Your task to perform on an android device: Go to Maps Image 0: 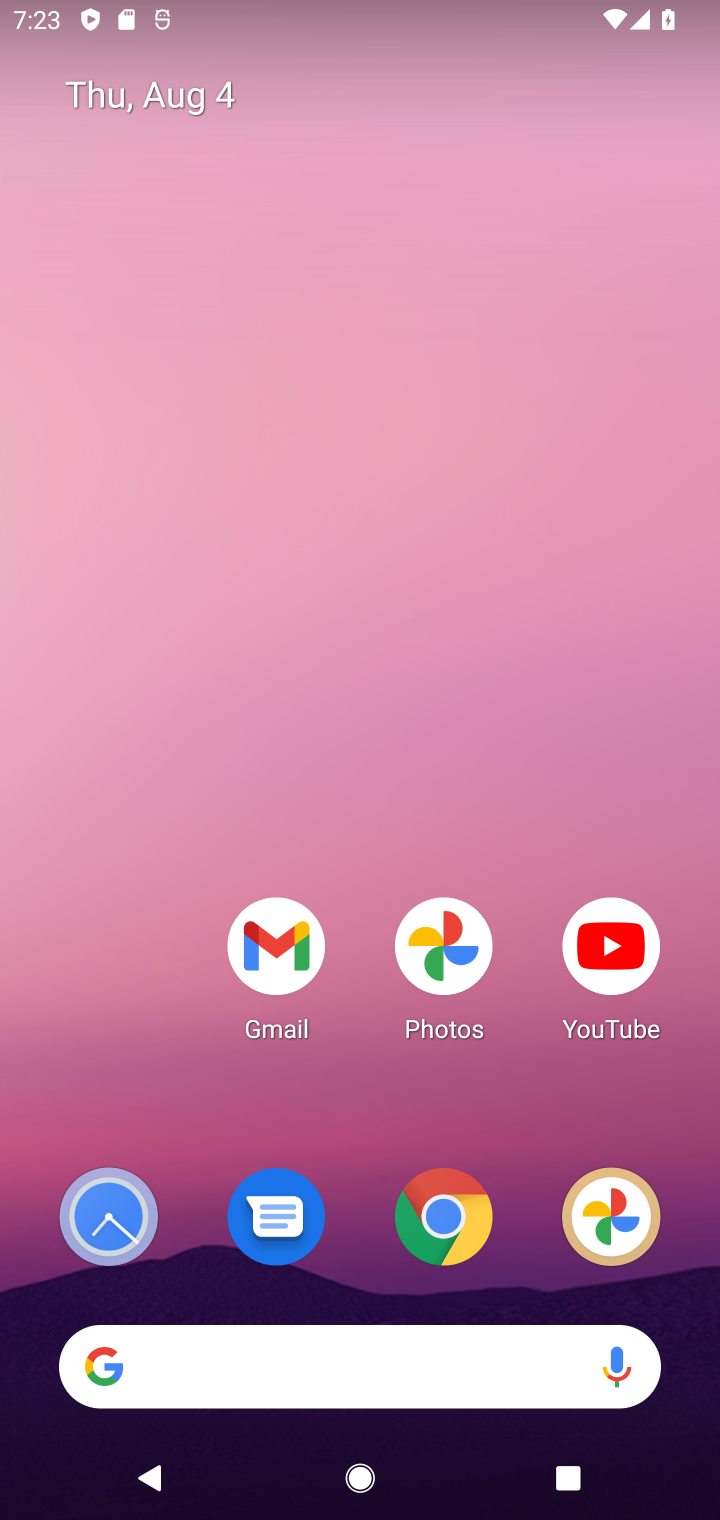
Step 0: drag from (465, 1086) to (439, 335)
Your task to perform on an android device: Go to Maps Image 1: 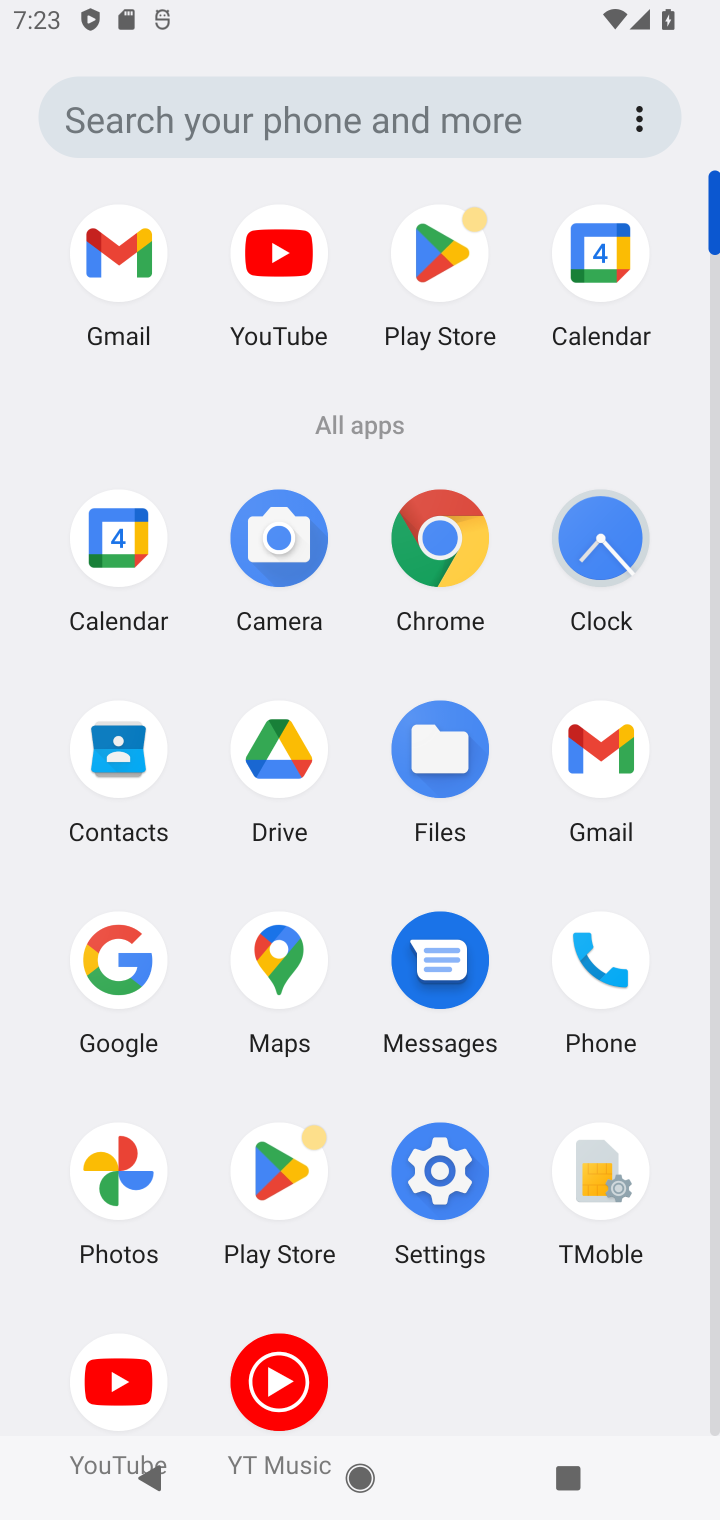
Step 1: click (269, 959)
Your task to perform on an android device: Go to Maps Image 2: 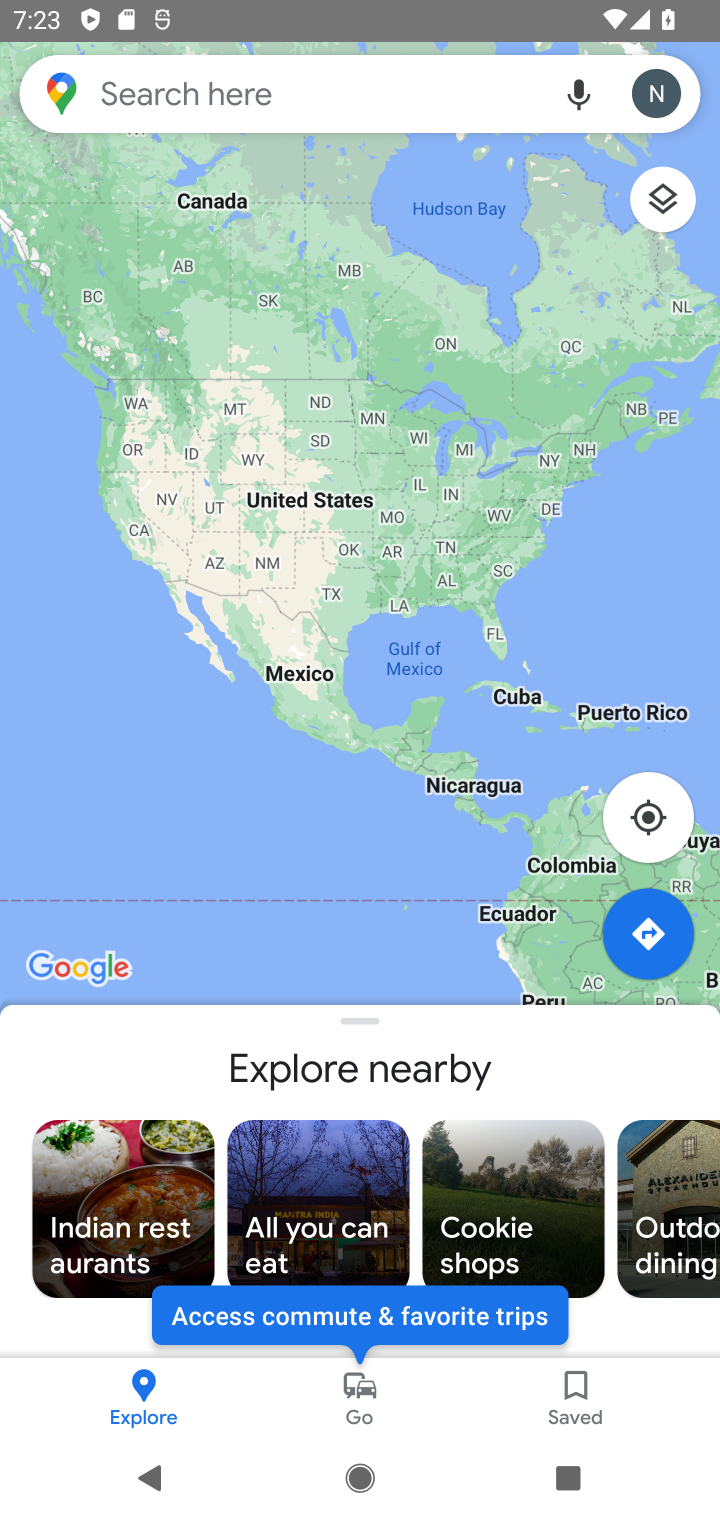
Step 2: task complete